Your task to perform on an android device: Search for floor lamps on article.com Image 0: 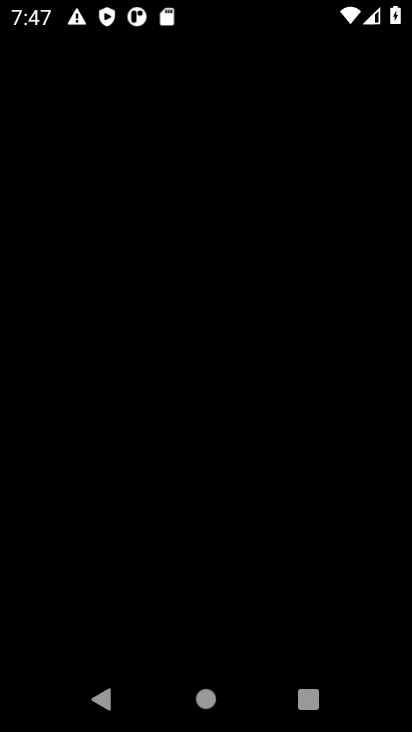
Step 0: press home button
Your task to perform on an android device: Search for floor lamps on article.com Image 1: 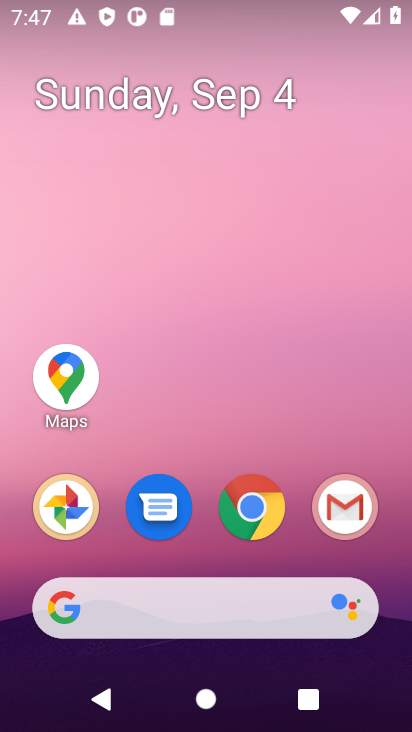
Step 1: click (256, 508)
Your task to perform on an android device: Search for floor lamps on article.com Image 2: 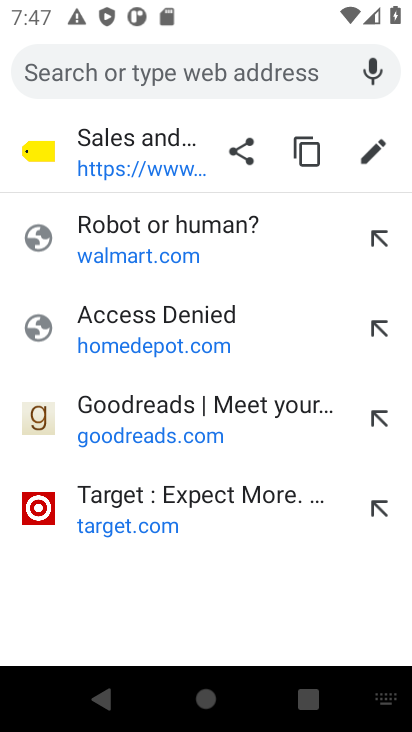
Step 2: type "articel.com"
Your task to perform on an android device: Search for floor lamps on article.com Image 3: 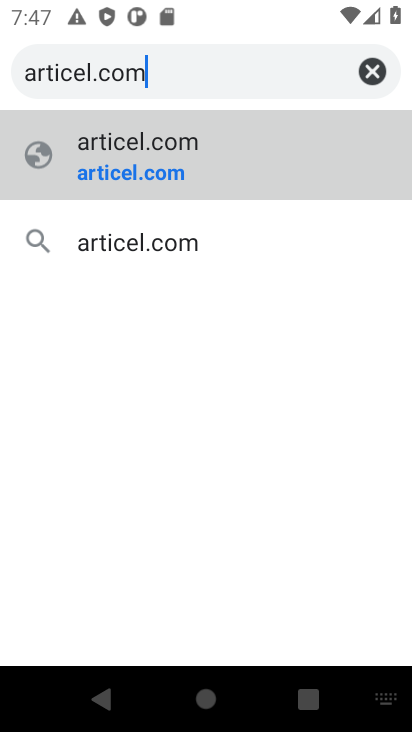
Step 3: click (377, 70)
Your task to perform on an android device: Search for floor lamps on article.com Image 4: 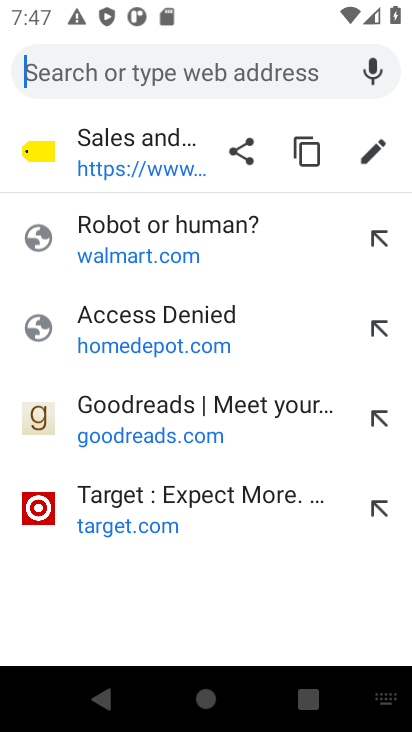
Step 4: type "article.com"
Your task to perform on an android device: Search for floor lamps on article.com Image 5: 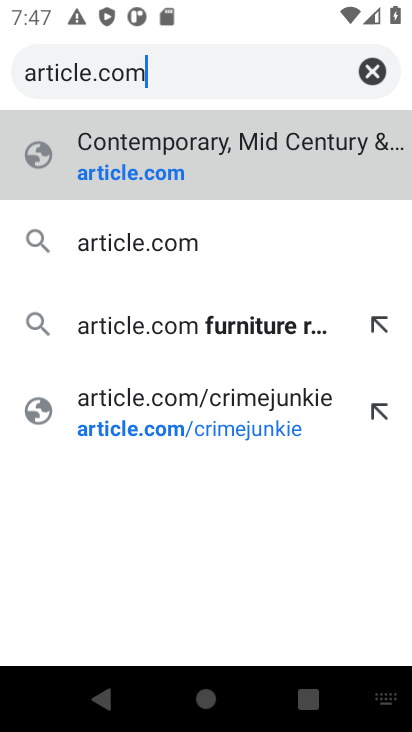
Step 5: click (183, 164)
Your task to perform on an android device: Search for floor lamps on article.com Image 6: 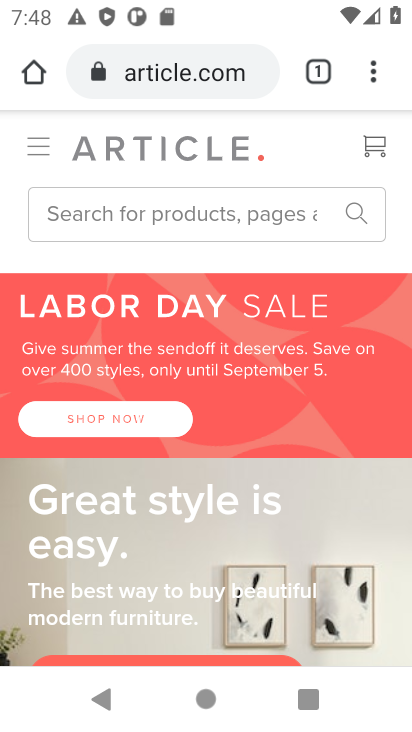
Step 6: click (206, 225)
Your task to perform on an android device: Search for floor lamps on article.com Image 7: 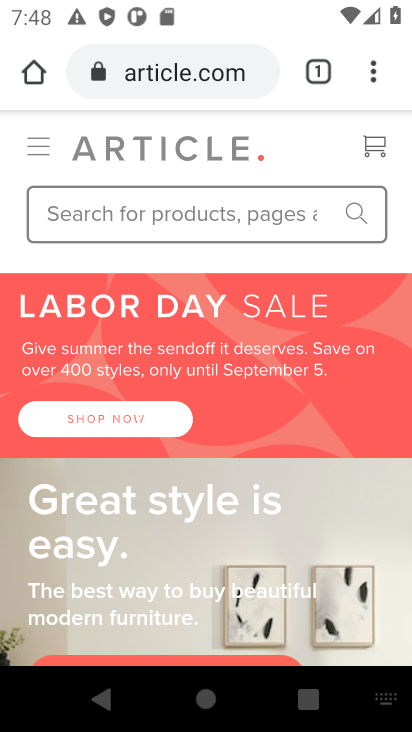
Step 7: type "floor lamps"
Your task to perform on an android device: Search for floor lamps on article.com Image 8: 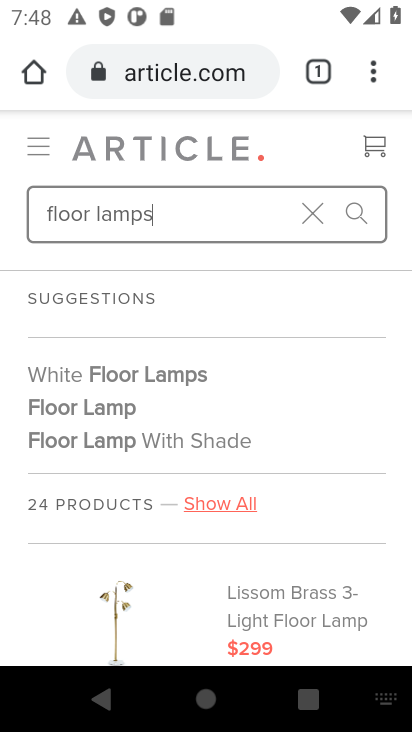
Step 8: click (114, 407)
Your task to perform on an android device: Search for floor lamps on article.com Image 9: 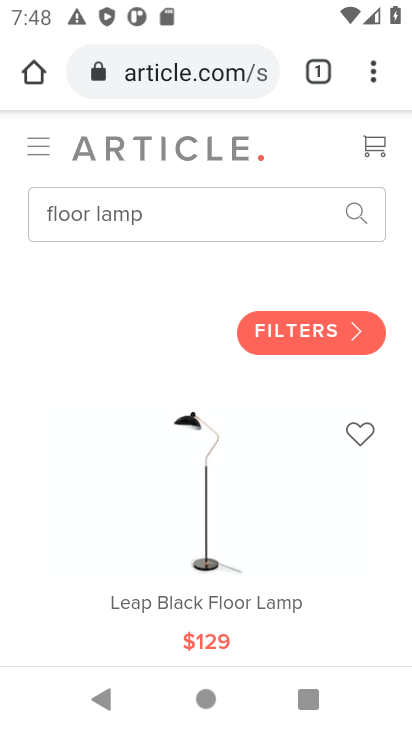
Step 9: task complete